Your task to perform on an android device: move a message to another label in the gmail app Image 0: 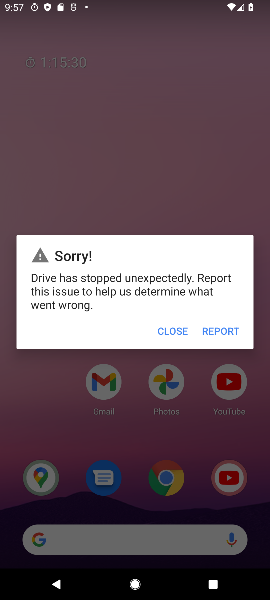
Step 0: click (170, 337)
Your task to perform on an android device: move a message to another label in the gmail app Image 1: 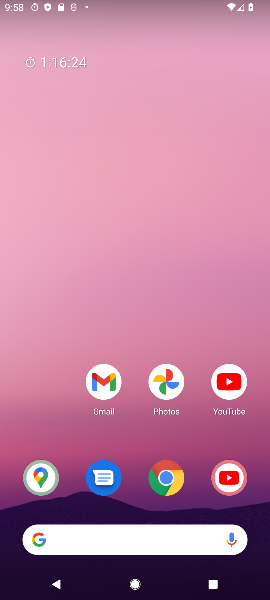
Step 1: drag from (130, 457) to (79, 89)
Your task to perform on an android device: move a message to another label in the gmail app Image 2: 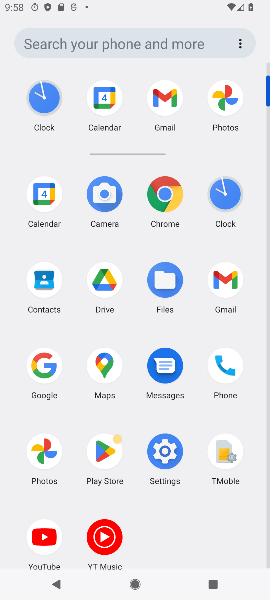
Step 2: click (227, 279)
Your task to perform on an android device: move a message to another label in the gmail app Image 3: 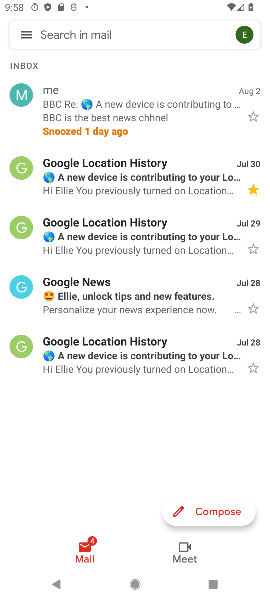
Step 3: click (132, 112)
Your task to perform on an android device: move a message to another label in the gmail app Image 4: 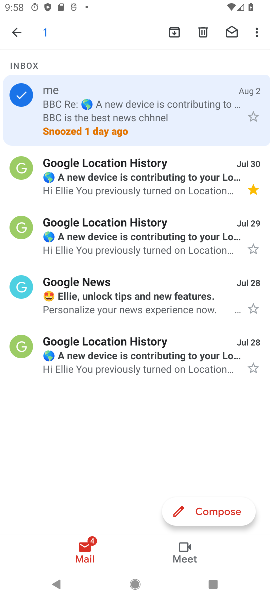
Step 4: click (253, 27)
Your task to perform on an android device: move a message to another label in the gmail app Image 5: 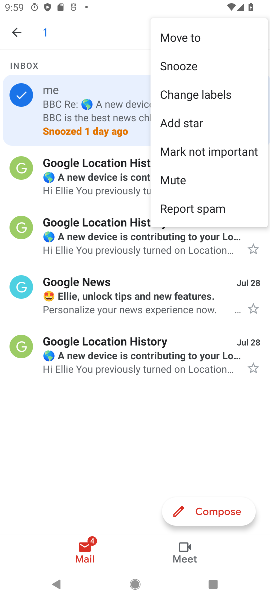
Step 5: click (176, 35)
Your task to perform on an android device: move a message to another label in the gmail app Image 6: 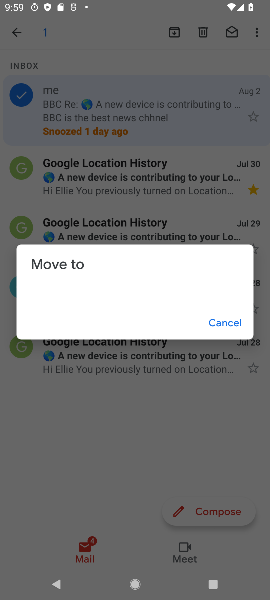
Step 6: click (111, 66)
Your task to perform on an android device: move a message to another label in the gmail app Image 7: 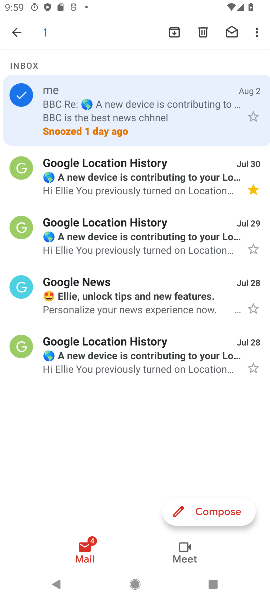
Step 7: task complete